Your task to perform on an android device: Open the web browser Image 0: 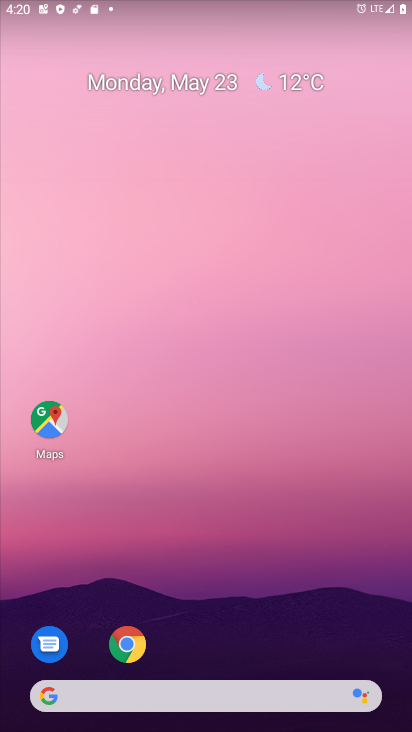
Step 0: click (140, 645)
Your task to perform on an android device: Open the web browser Image 1: 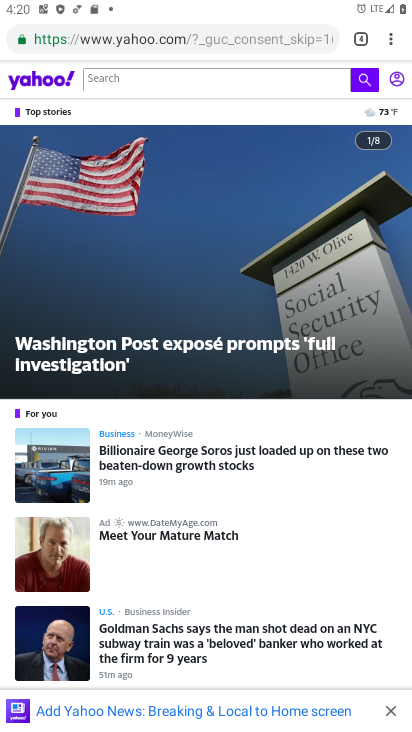
Step 1: task complete